Your task to perform on an android device: remove spam from my inbox in the gmail app Image 0: 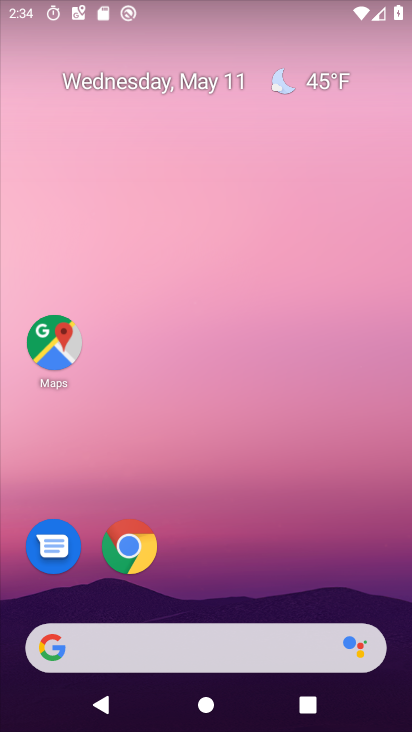
Step 0: drag from (192, 595) to (153, 0)
Your task to perform on an android device: remove spam from my inbox in the gmail app Image 1: 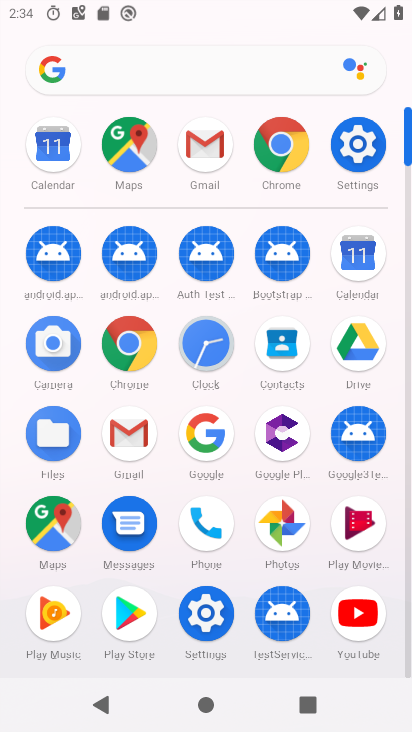
Step 1: click (134, 433)
Your task to perform on an android device: remove spam from my inbox in the gmail app Image 2: 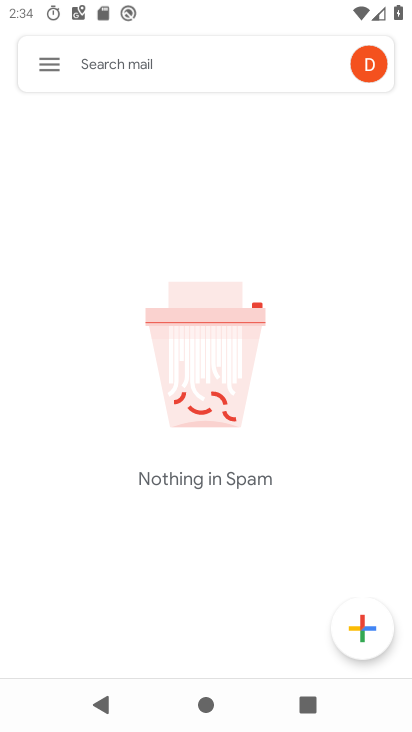
Step 2: click (58, 60)
Your task to perform on an android device: remove spam from my inbox in the gmail app Image 3: 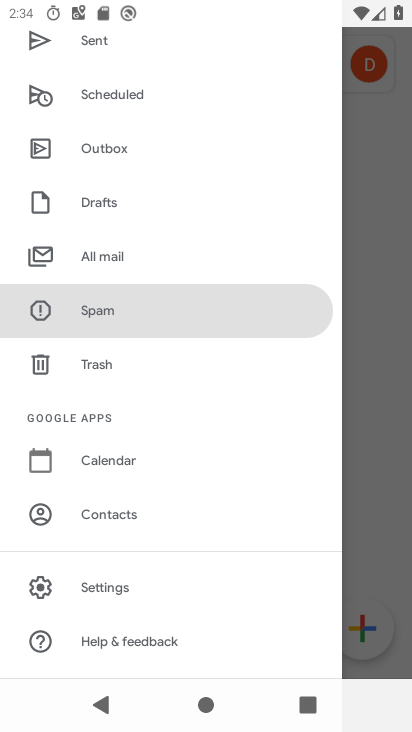
Step 3: click (117, 319)
Your task to perform on an android device: remove spam from my inbox in the gmail app Image 4: 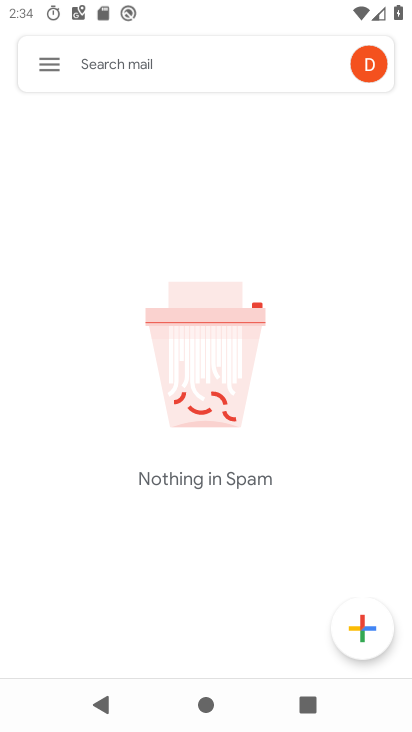
Step 4: task complete